Your task to perform on an android device: Open maps Image 0: 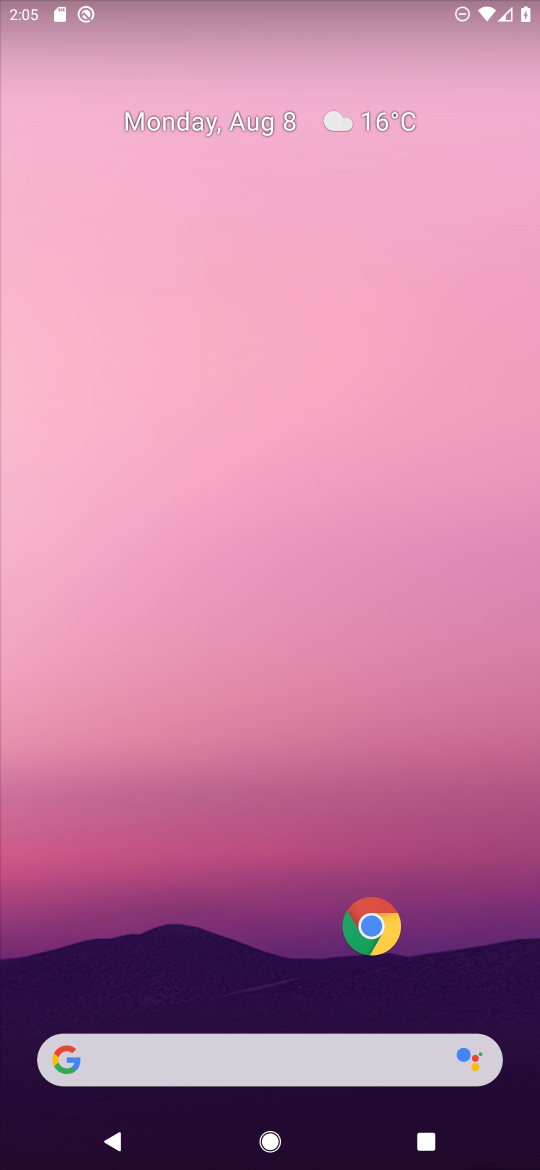
Step 0: drag from (265, 1061) to (328, 111)
Your task to perform on an android device: Open maps Image 1: 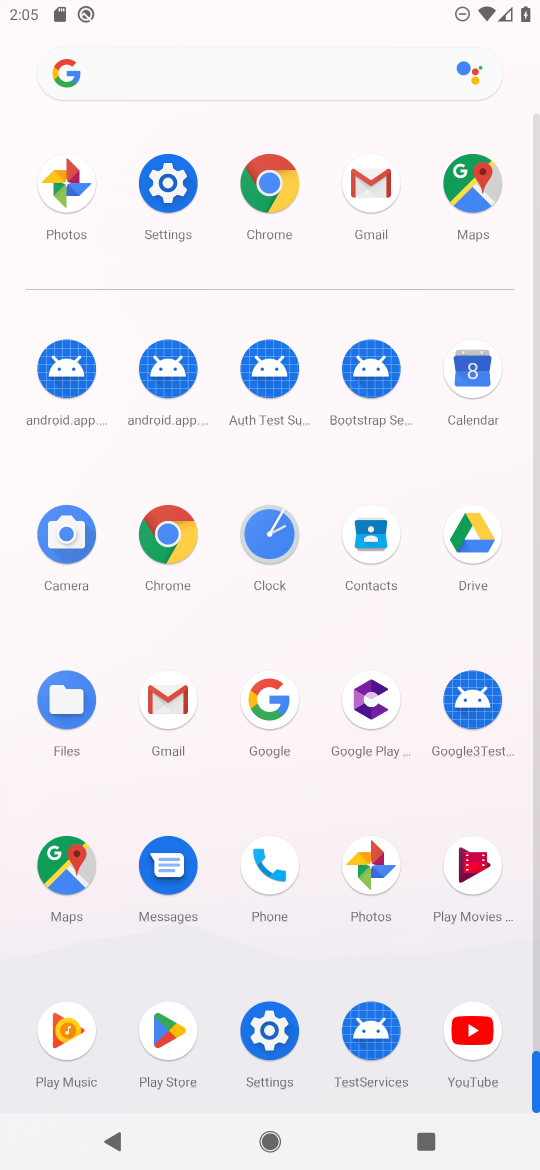
Step 1: click (57, 869)
Your task to perform on an android device: Open maps Image 2: 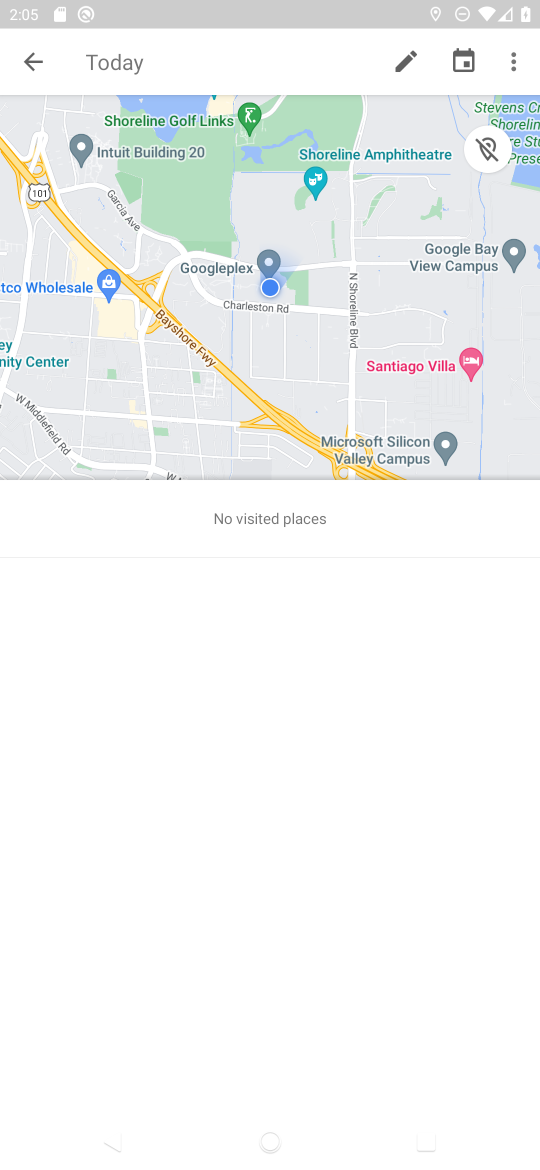
Step 2: click (44, 57)
Your task to perform on an android device: Open maps Image 3: 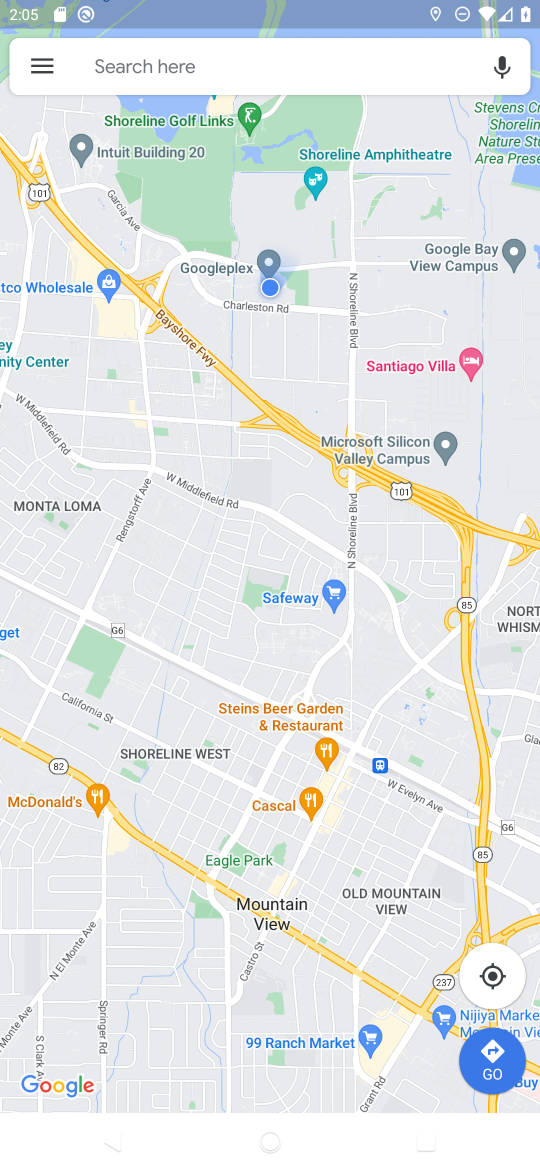
Step 3: task complete